Your task to perform on an android device: turn on the 12-hour format for clock Image 0: 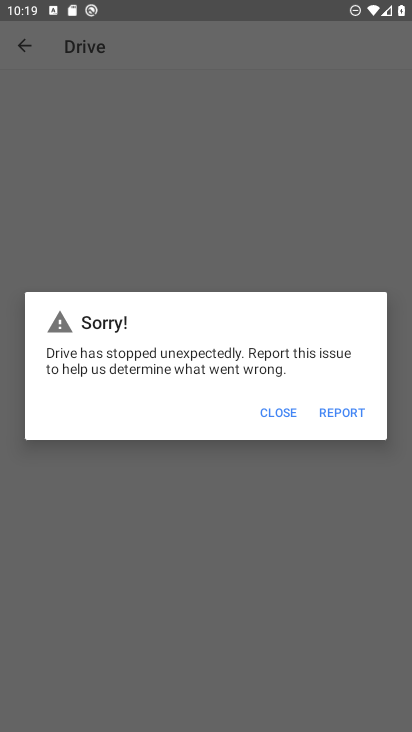
Step 0: press home button
Your task to perform on an android device: turn on the 12-hour format for clock Image 1: 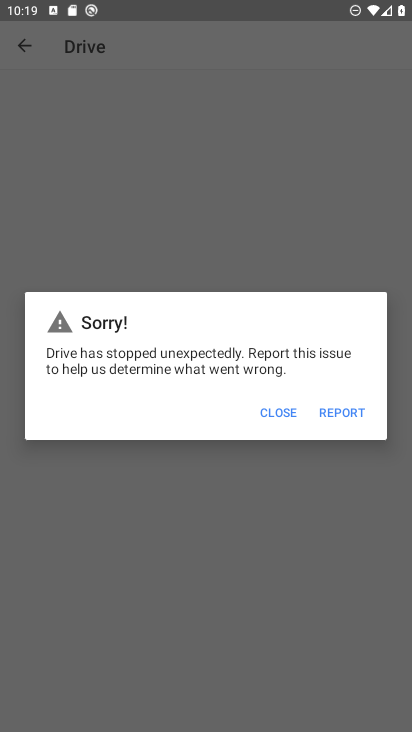
Step 1: press home button
Your task to perform on an android device: turn on the 12-hour format for clock Image 2: 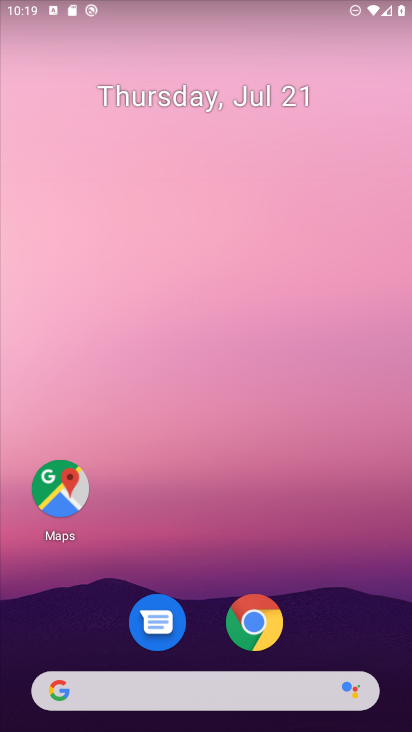
Step 2: drag from (195, 705) to (202, 175)
Your task to perform on an android device: turn on the 12-hour format for clock Image 3: 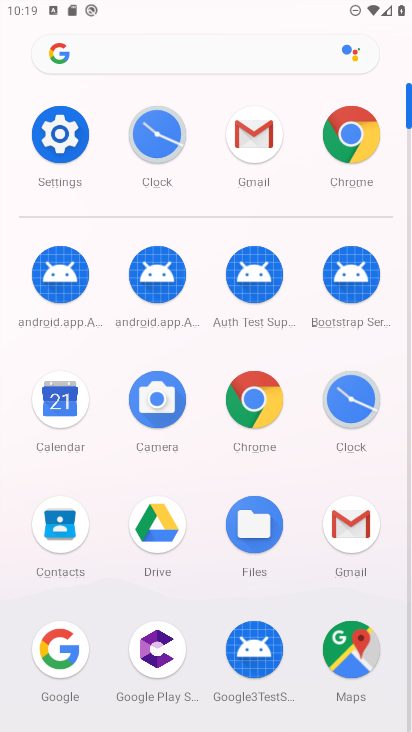
Step 3: click (333, 405)
Your task to perform on an android device: turn on the 12-hour format for clock Image 4: 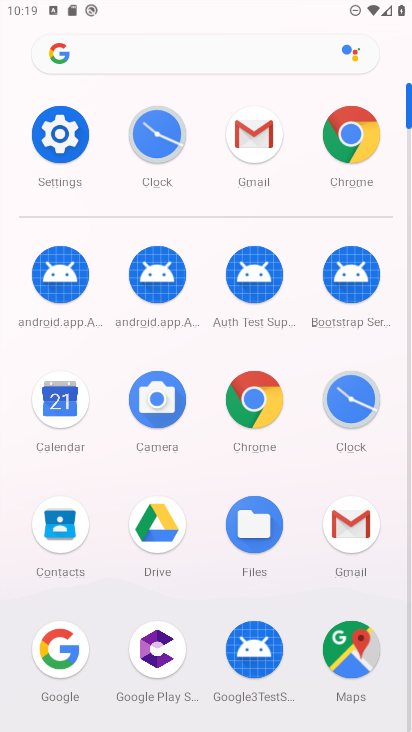
Step 4: click (333, 405)
Your task to perform on an android device: turn on the 12-hour format for clock Image 5: 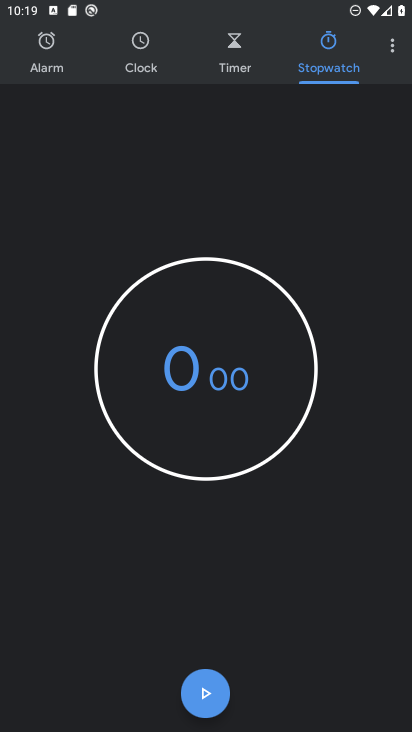
Step 5: click (398, 40)
Your task to perform on an android device: turn on the 12-hour format for clock Image 6: 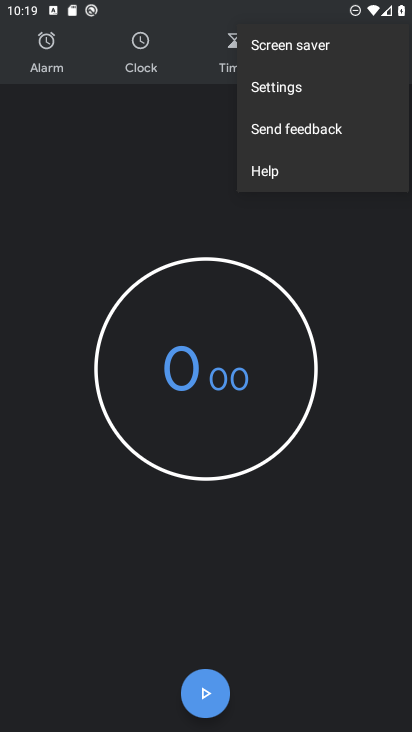
Step 6: click (336, 84)
Your task to perform on an android device: turn on the 12-hour format for clock Image 7: 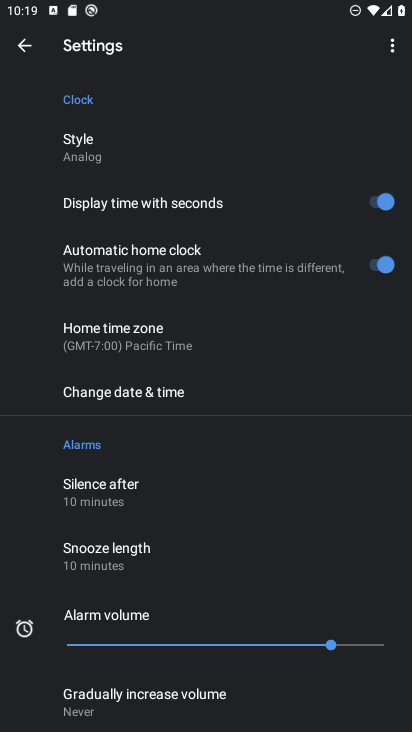
Step 7: click (172, 398)
Your task to perform on an android device: turn on the 12-hour format for clock Image 8: 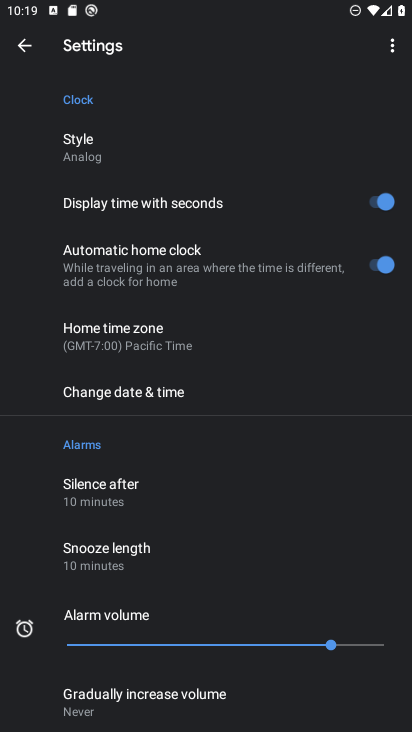
Step 8: click (172, 398)
Your task to perform on an android device: turn on the 12-hour format for clock Image 9: 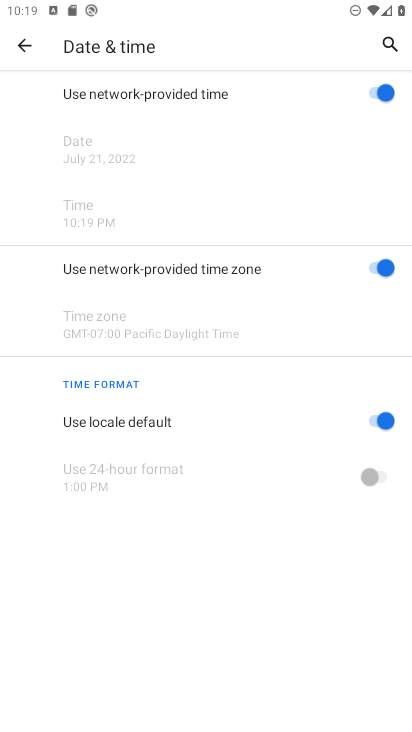
Step 9: task complete